Your task to perform on an android device: toggle notifications settings in the gmail app Image 0: 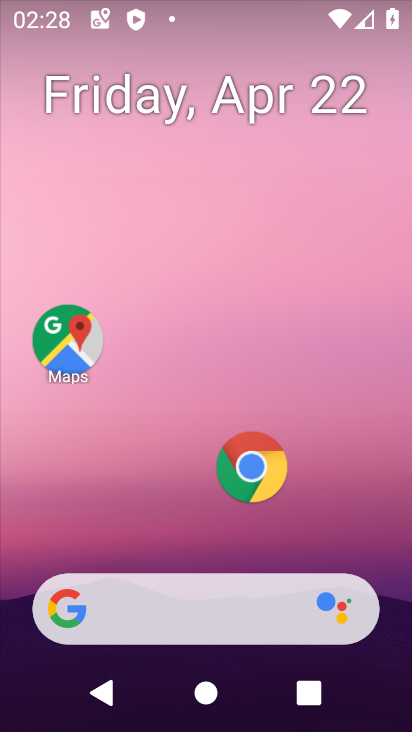
Step 0: drag from (199, 539) to (247, 196)
Your task to perform on an android device: toggle notifications settings in the gmail app Image 1: 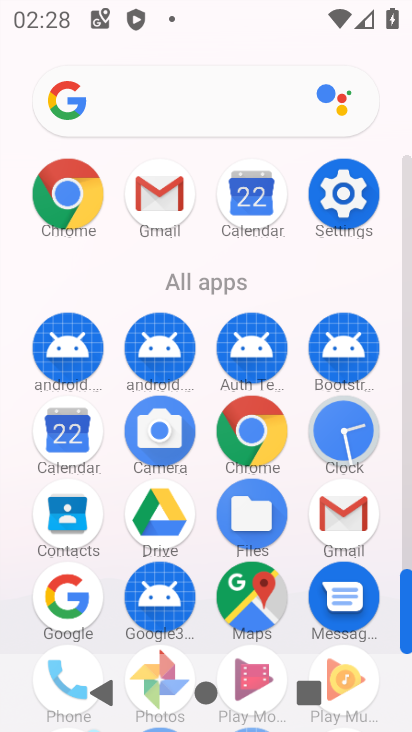
Step 1: click (351, 497)
Your task to perform on an android device: toggle notifications settings in the gmail app Image 2: 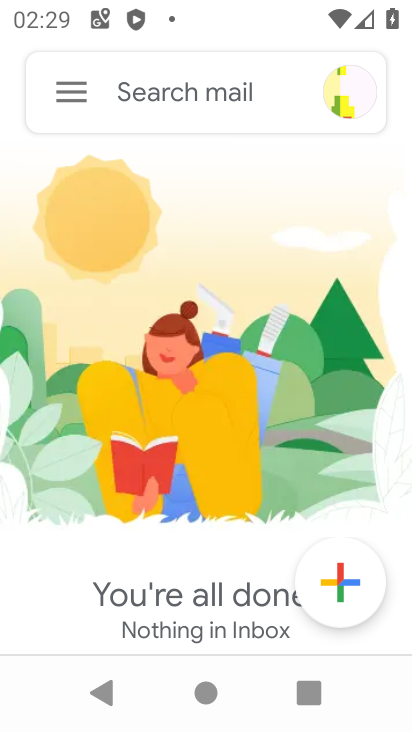
Step 2: click (83, 89)
Your task to perform on an android device: toggle notifications settings in the gmail app Image 3: 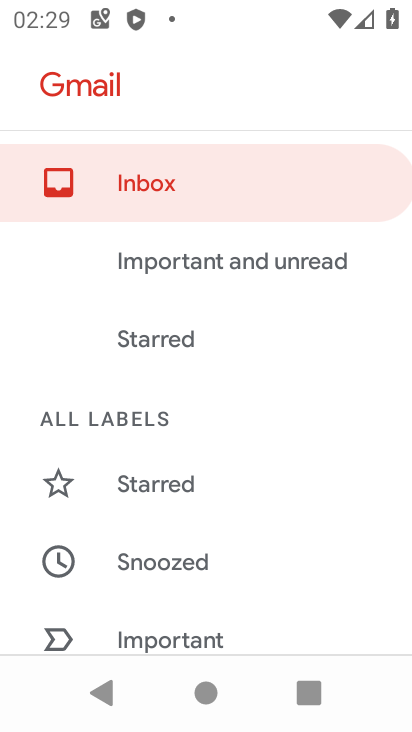
Step 3: drag from (165, 532) to (200, 156)
Your task to perform on an android device: toggle notifications settings in the gmail app Image 4: 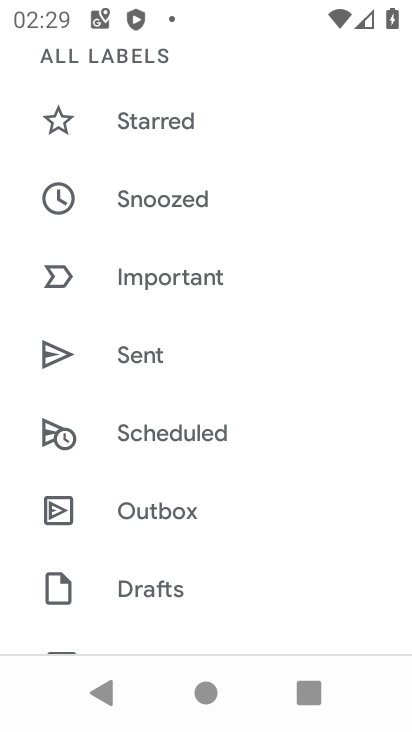
Step 4: drag from (170, 469) to (184, 214)
Your task to perform on an android device: toggle notifications settings in the gmail app Image 5: 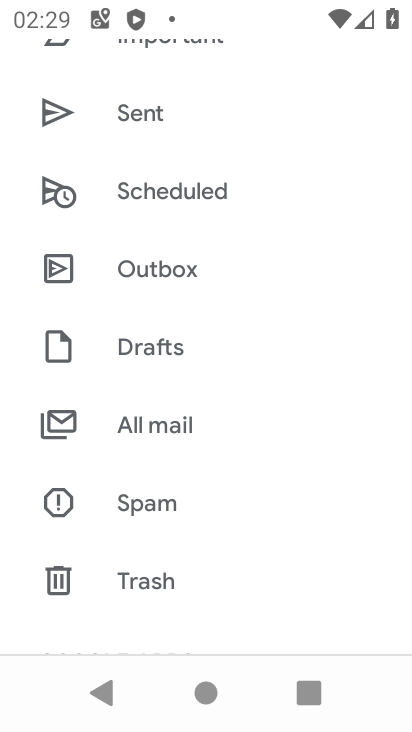
Step 5: drag from (165, 524) to (167, 266)
Your task to perform on an android device: toggle notifications settings in the gmail app Image 6: 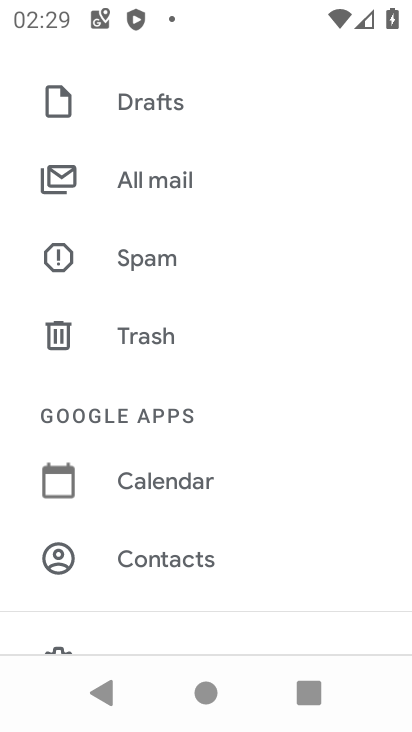
Step 6: drag from (173, 373) to (236, 171)
Your task to perform on an android device: toggle notifications settings in the gmail app Image 7: 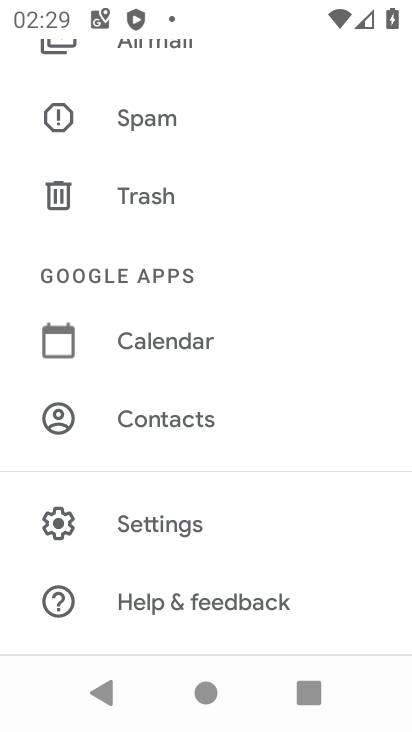
Step 7: click (122, 531)
Your task to perform on an android device: toggle notifications settings in the gmail app Image 8: 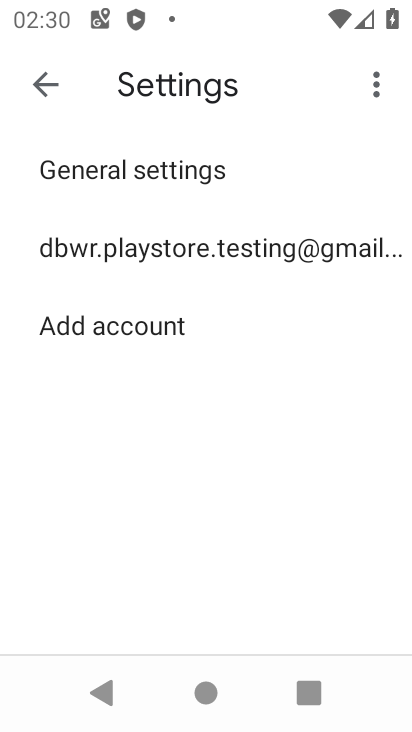
Step 8: click (337, 254)
Your task to perform on an android device: toggle notifications settings in the gmail app Image 9: 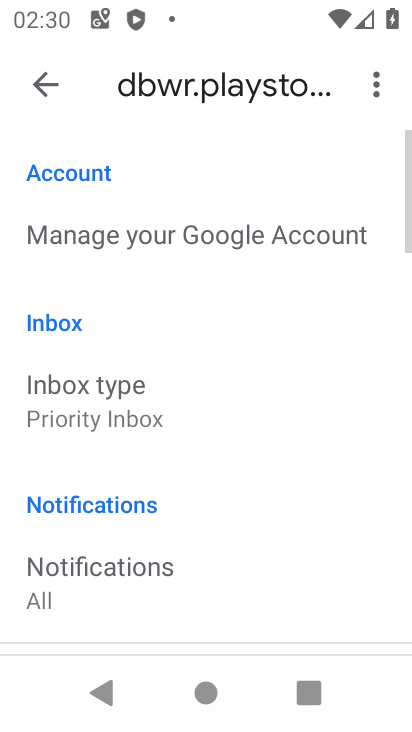
Step 9: drag from (160, 530) to (200, 256)
Your task to perform on an android device: toggle notifications settings in the gmail app Image 10: 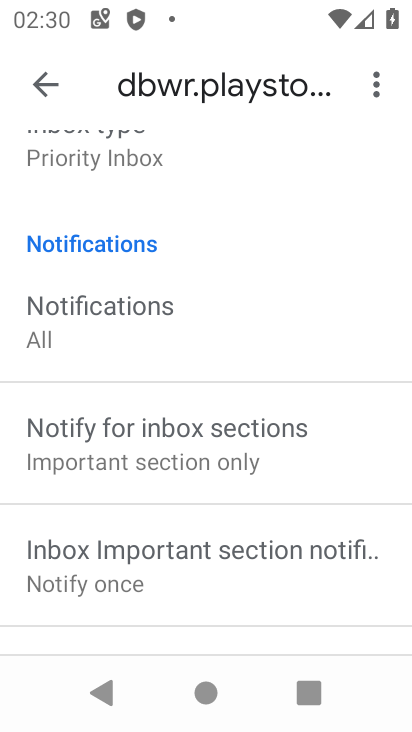
Step 10: click (125, 309)
Your task to perform on an android device: toggle notifications settings in the gmail app Image 11: 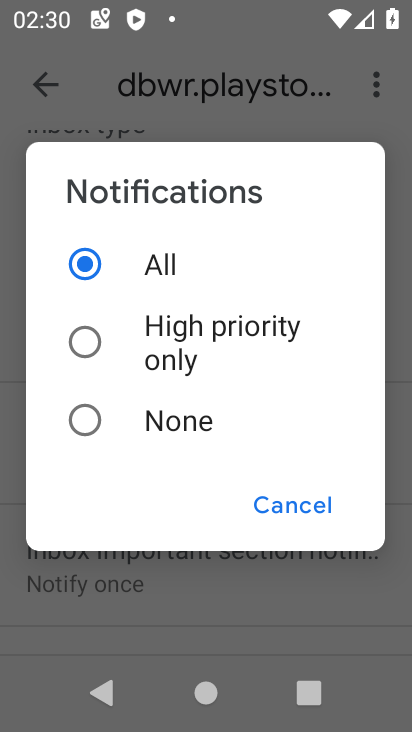
Step 11: click (81, 352)
Your task to perform on an android device: toggle notifications settings in the gmail app Image 12: 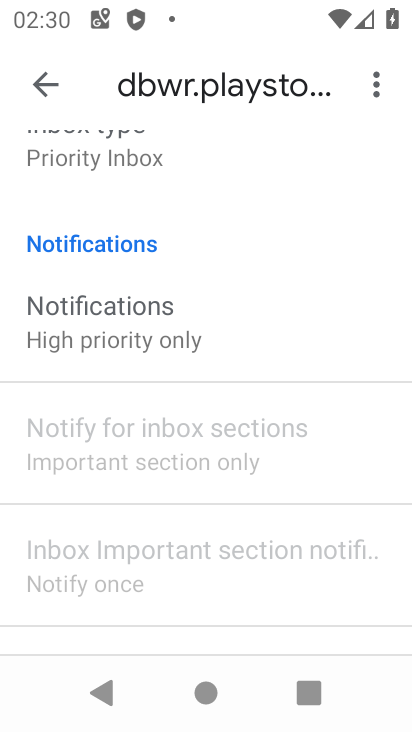
Step 12: task complete